Your task to perform on an android device: Open Youtube and go to "Your channel" Image 0: 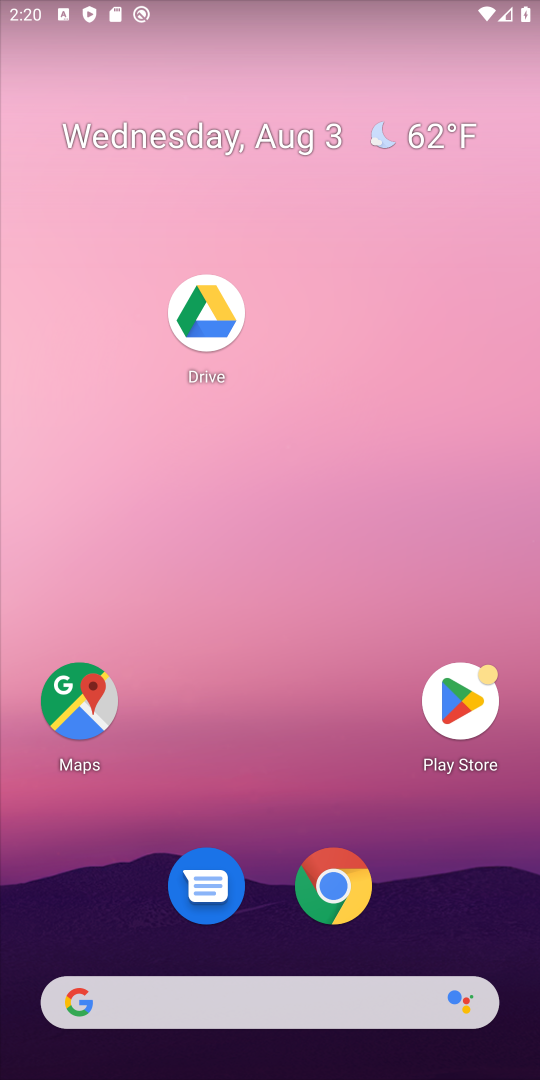
Step 0: drag from (342, 456) to (533, 992)
Your task to perform on an android device: Open Youtube and go to "Your channel" Image 1: 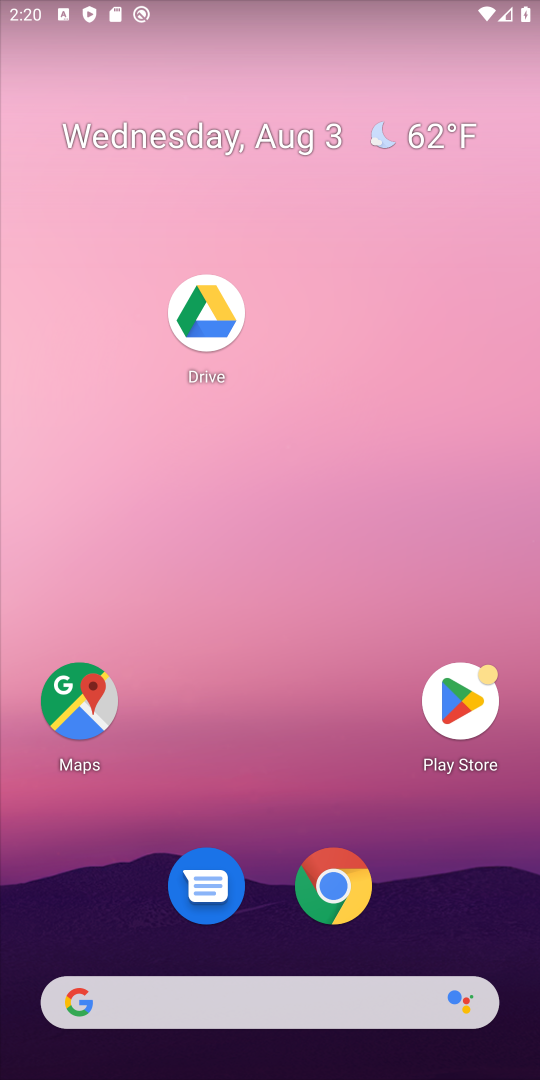
Step 1: drag from (269, 653) to (250, 28)
Your task to perform on an android device: Open Youtube and go to "Your channel" Image 2: 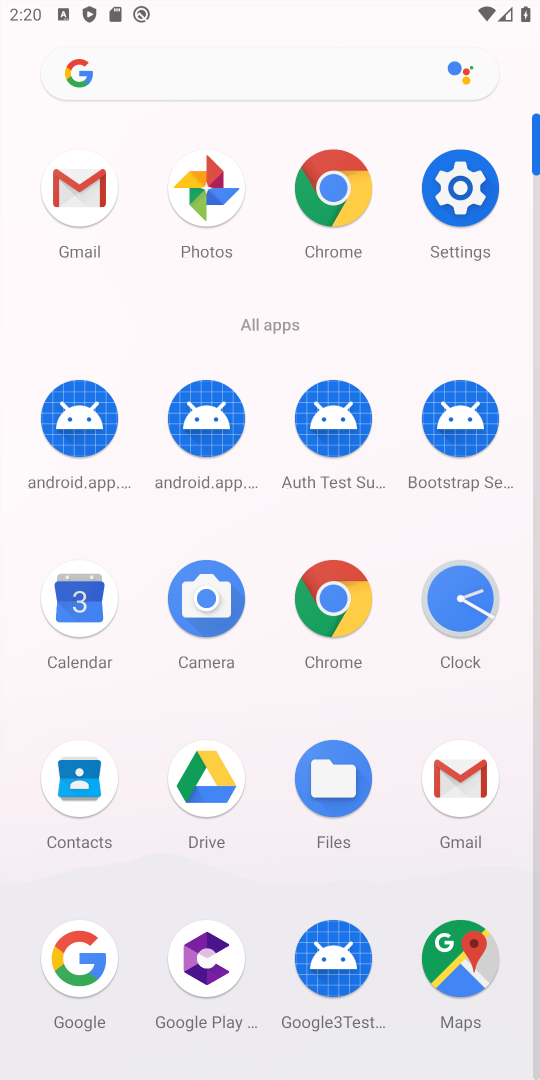
Step 2: drag from (345, 1018) to (359, 519)
Your task to perform on an android device: Open Youtube and go to "Your channel" Image 3: 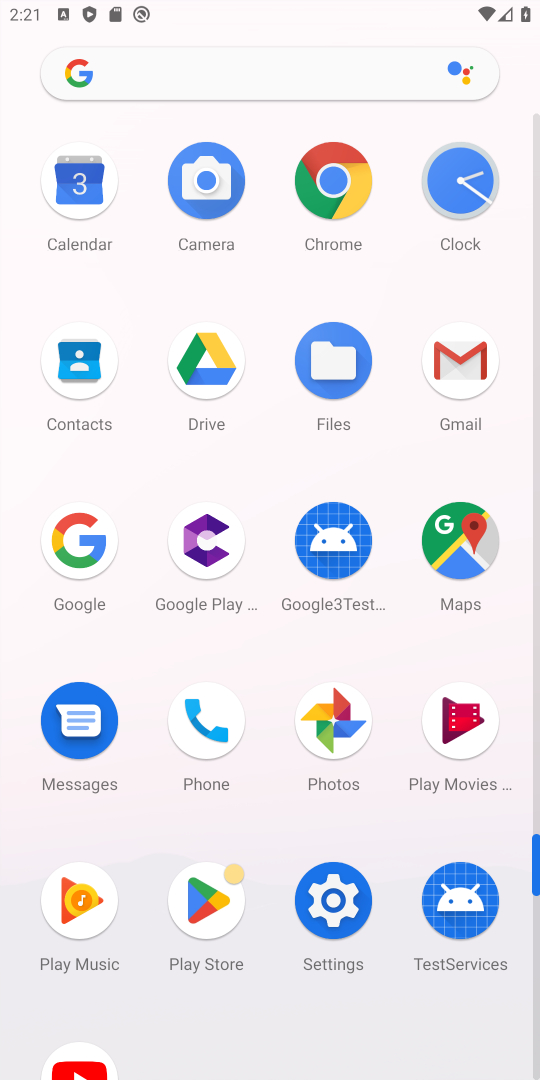
Step 3: click (63, 1050)
Your task to perform on an android device: Open Youtube and go to "Your channel" Image 4: 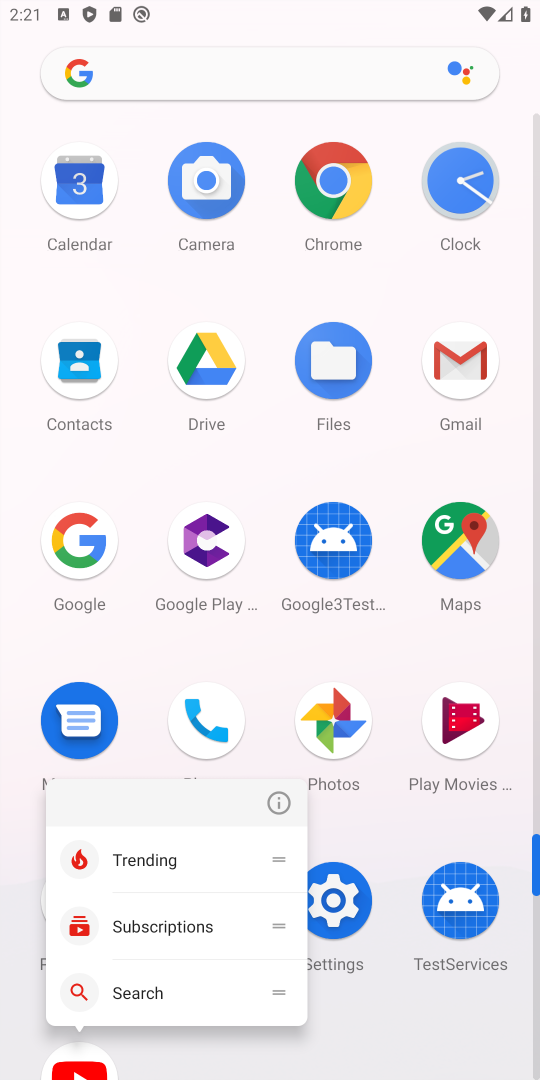
Step 4: click (95, 1048)
Your task to perform on an android device: Open Youtube and go to "Your channel" Image 5: 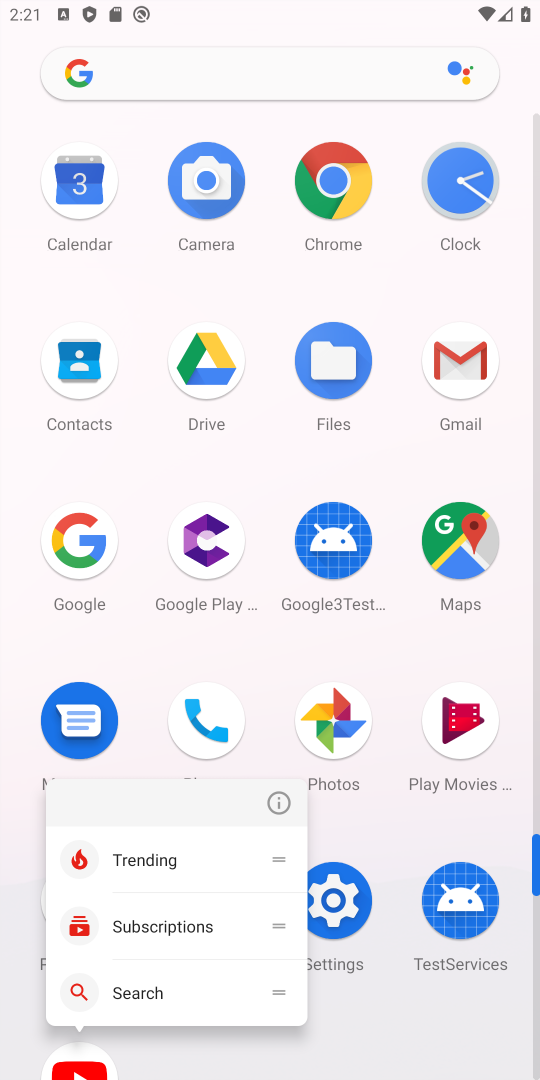
Step 5: click (95, 1047)
Your task to perform on an android device: Open Youtube and go to "Your channel" Image 6: 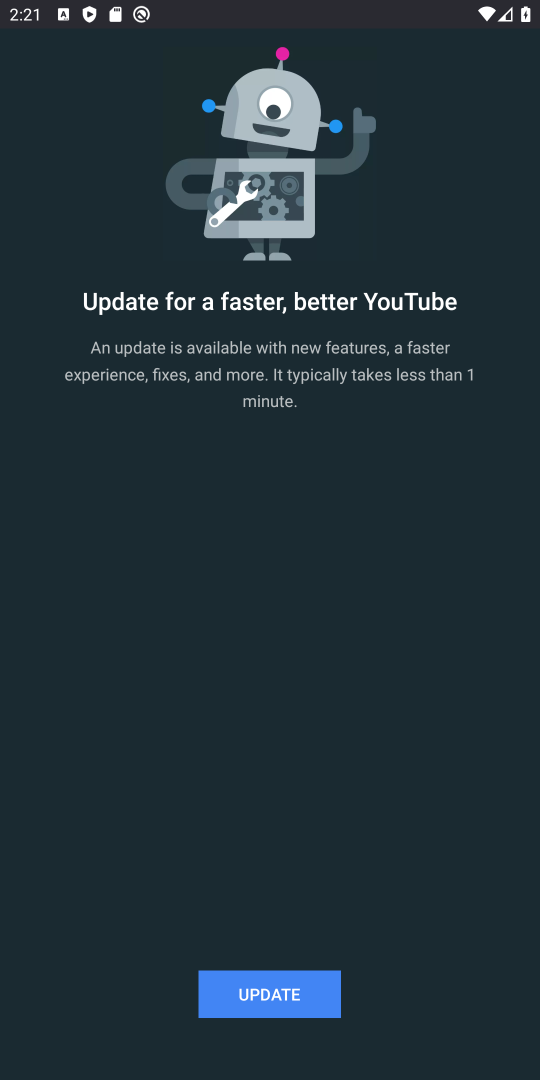
Step 6: click (304, 984)
Your task to perform on an android device: Open Youtube and go to "Your channel" Image 7: 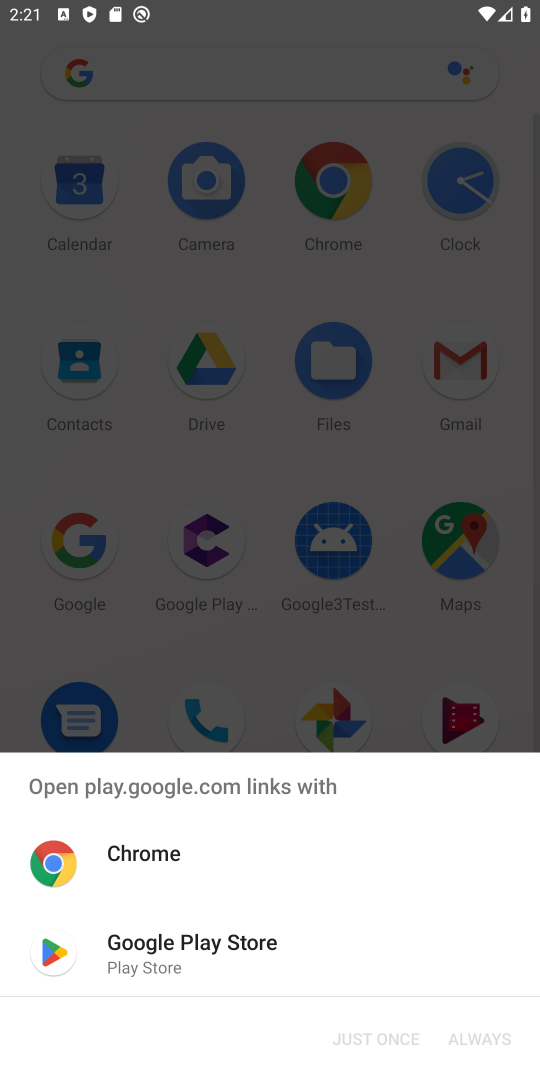
Step 7: click (345, 951)
Your task to perform on an android device: Open Youtube and go to "Your channel" Image 8: 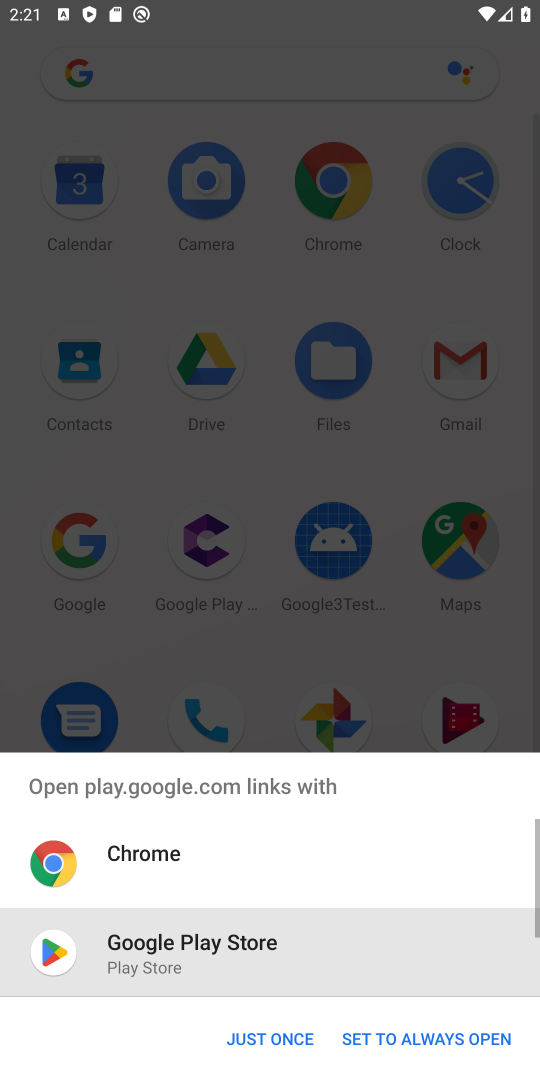
Step 8: click (265, 1036)
Your task to perform on an android device: Open Youtube and go to "Your channel" Image 9: 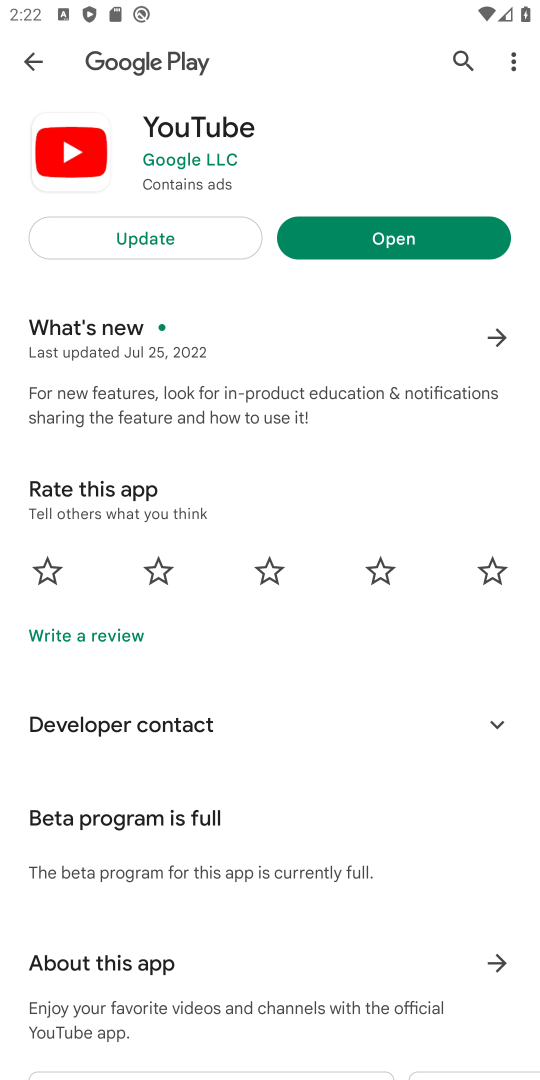
Step 9: click (183, 221)
Your task to perform on an android device: Open Youtube and go to "Your channel" Image 10: 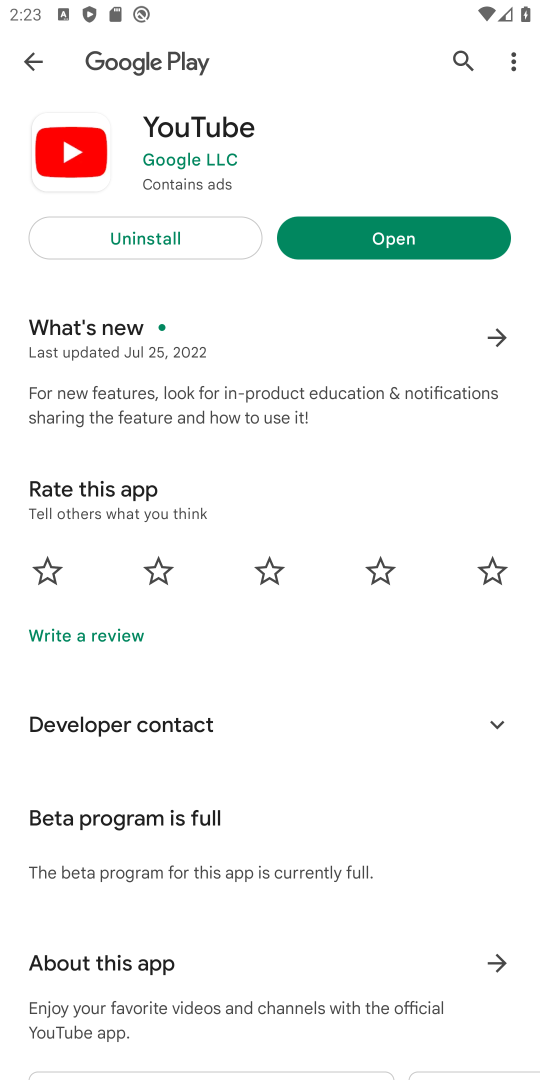
Step 10: click (356, 238)
Your task to perform on an android device: Open Youtube and go to "Your channel" Image 11: 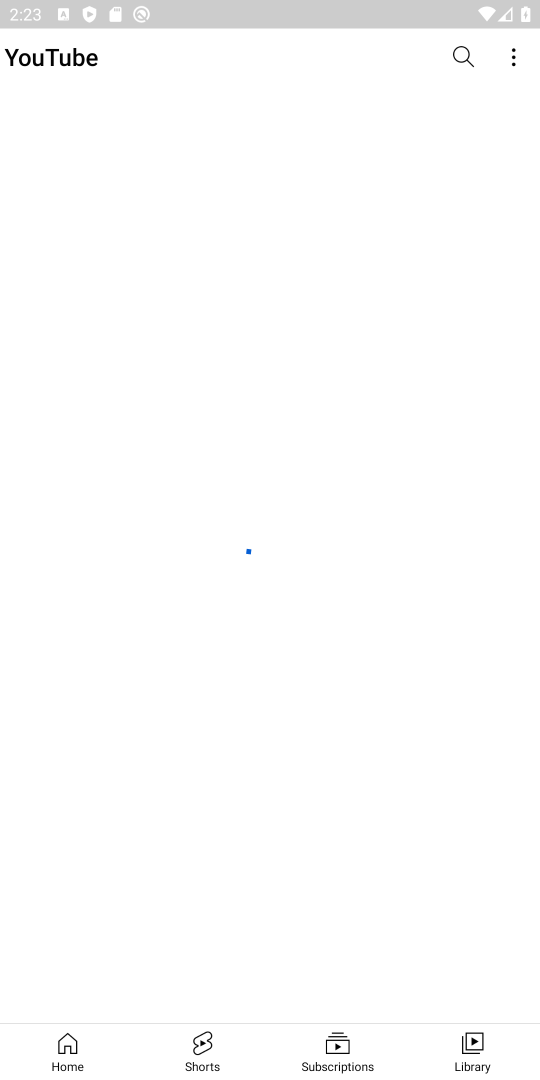
Step 11: click (515, 51)
Your task to perform on an android device: Open Youtube and go to "Your channel" Image 12: 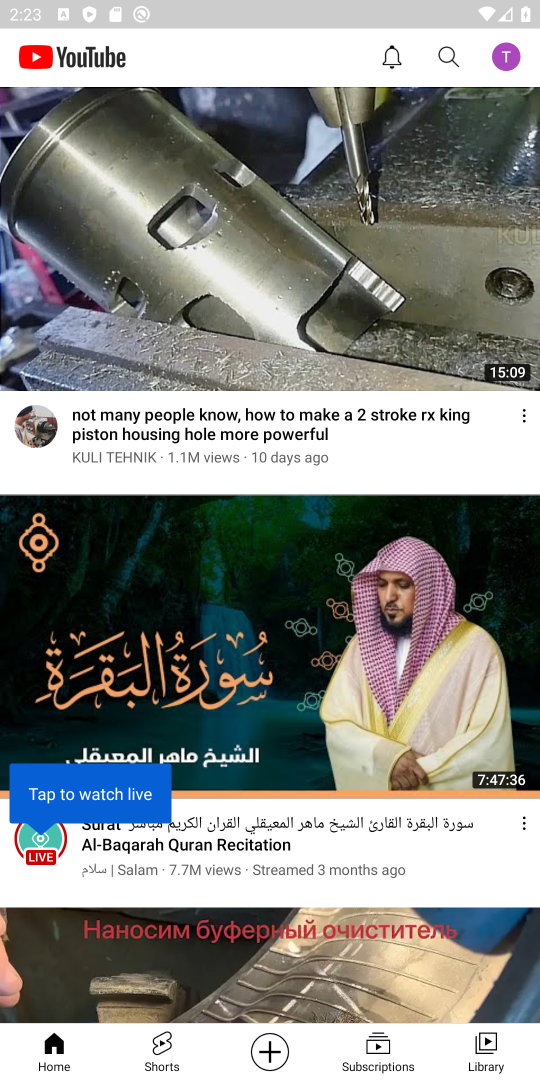
Step 12: click (495, 49)
Your task to perform on an android device: Open Youtube and go to "Your channel" Image 13: 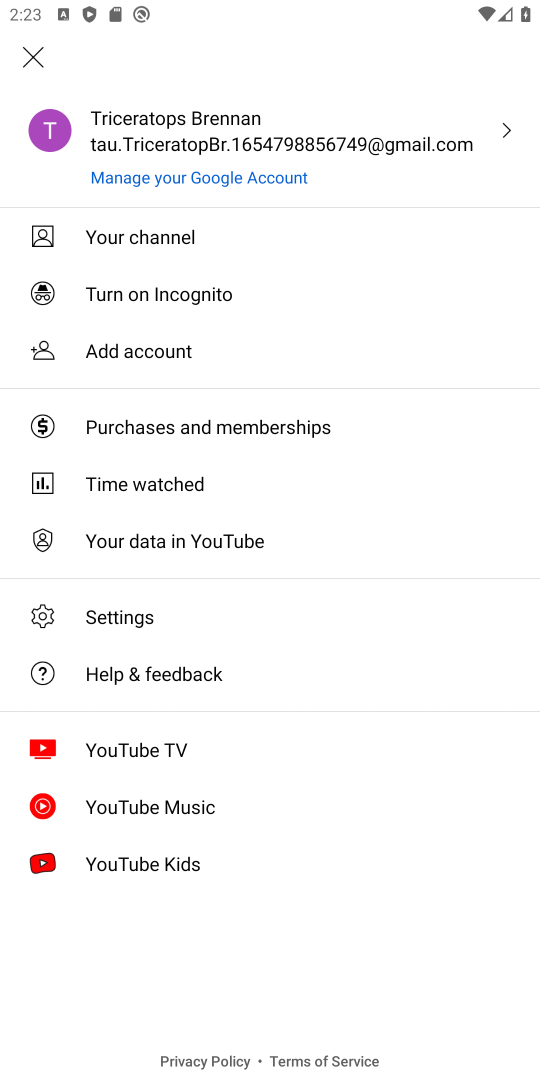
Step 13: click (177, 232)
Your task to perform on an android device: Open Youtube and go to "Your channel" Image 14: 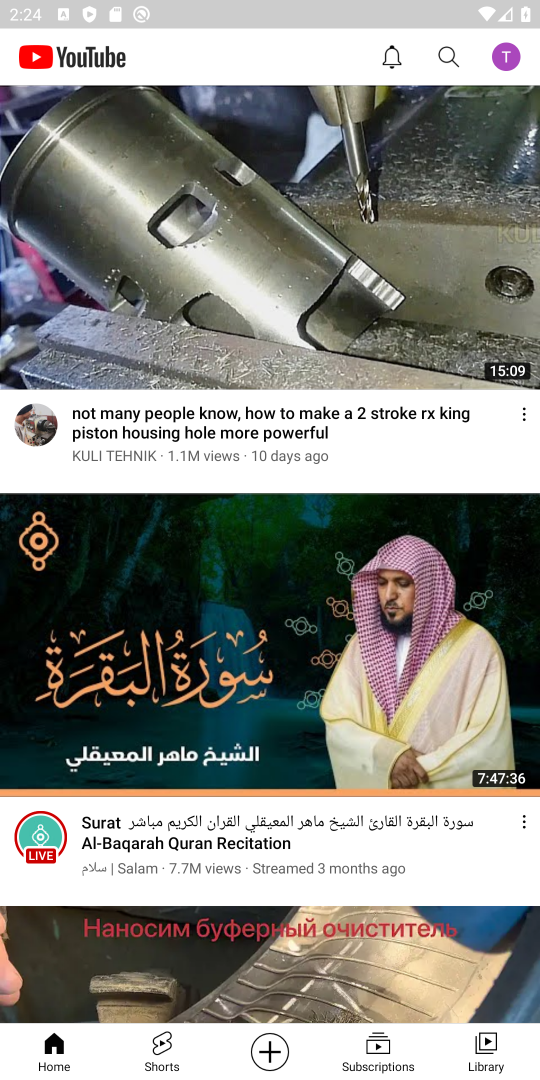
Step 14: task complete